Your task to perform on an android device: Go to Maps Image 0: 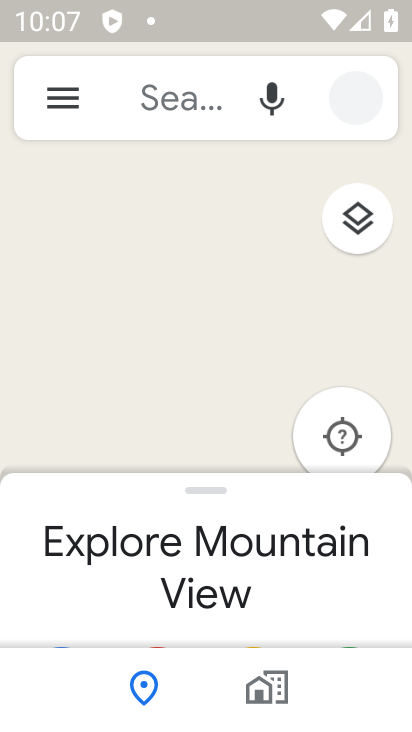
Step 0: press home button
Your task to perform on an android device: Go to Maps Image 1: 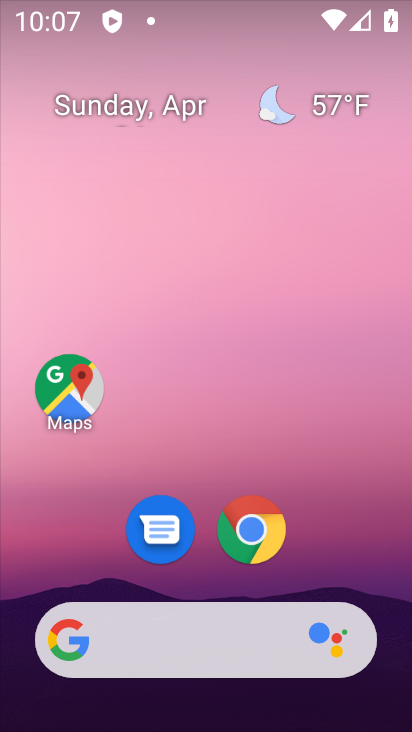
Step 1: click (67, 392)
Your task to perform on an android device: Go to Maps Image 2: 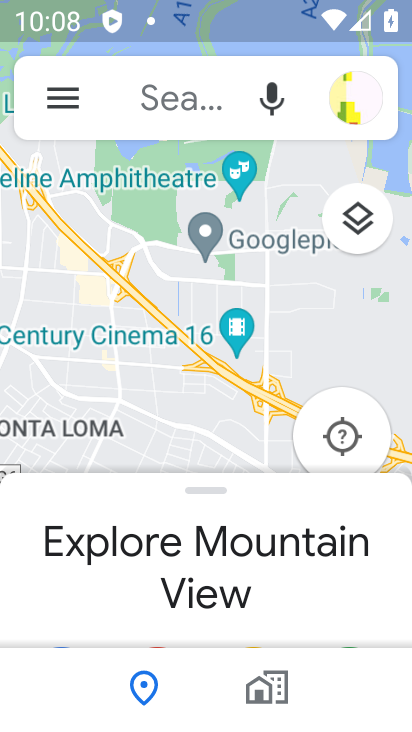
Step 2: task complete